Your task to perform on an android device: Go to notification settings Image 0: 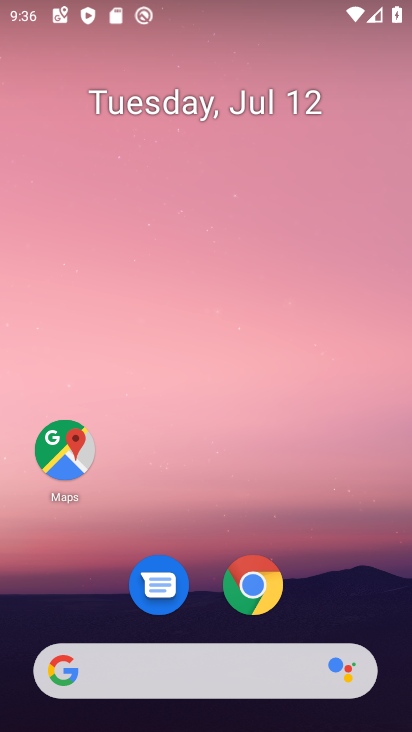
Step 0: drag from (190, 676) to (301, 166)
Your task to perform on an android device: Go to notification settings Image 1: 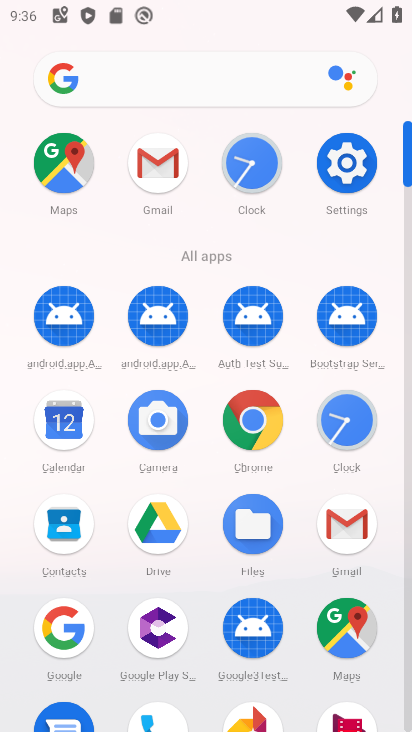
Step 1: click (352, 169)
Your task to perform on an android device: Go to notification settings Image 2: 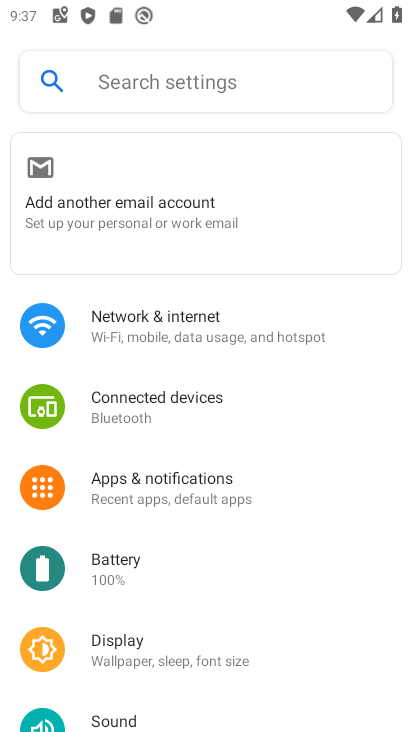
Step 2: click (162, 488)
Your task to perform on an android device: Go to notification settings Image 3: 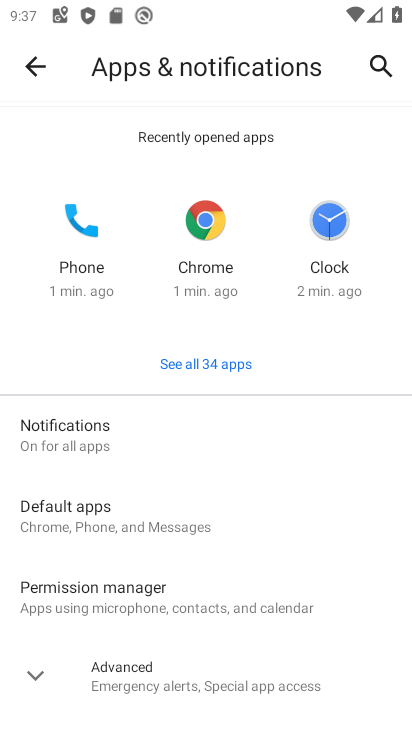
Step 3: click (94, 433)
Your task to perform on an android device: Go to notification settings Image 4: 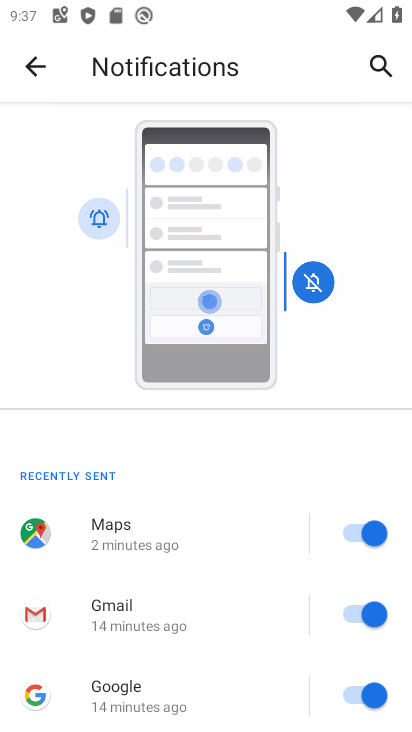
Step 4: task complete